Your task to perform on an android device: Open accessibility settings Image 0: 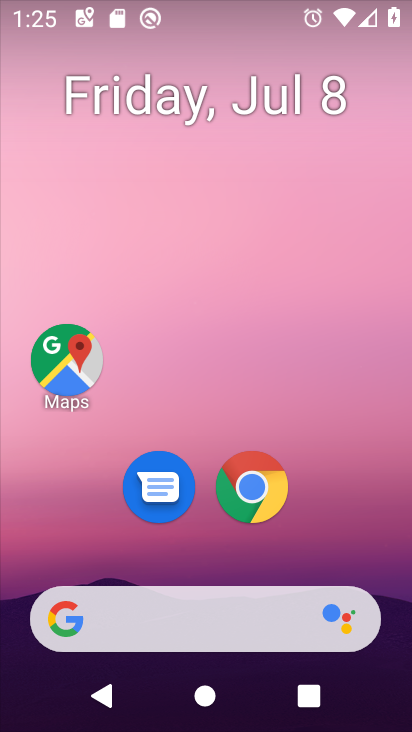
Step 0: drag from (352, 558) to (365, 243)
Your task to perform on an android device: Open accessibility settings Image 1: 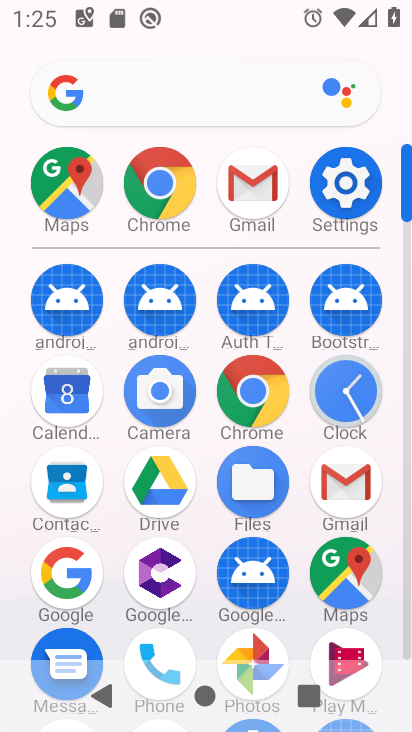
Step 1: click (366, 197)
Your task to perform on an android device: Open accessibility settings Image 2: 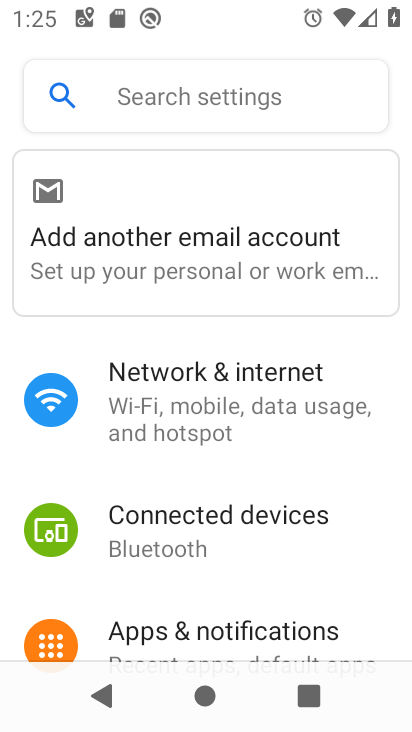
Step 2: drag from (370, 510) to (372, 409)
Your task to perform on an android device: Open accessibility settings Image 3: 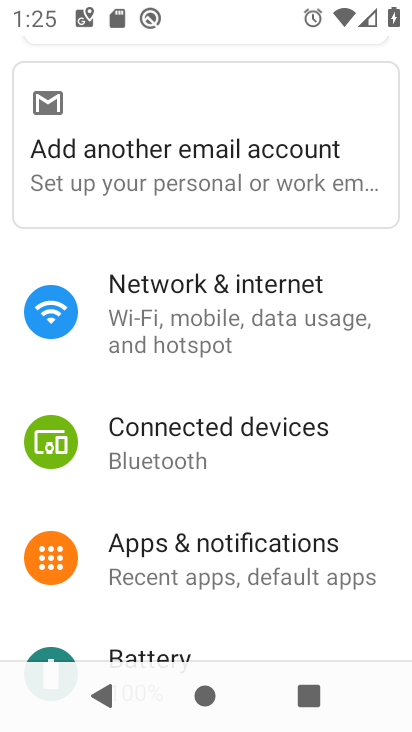
Step 3: drag from (376, 606) to (376, 469)
Your task to perform on an android device: Open accessibility settings Image 4: 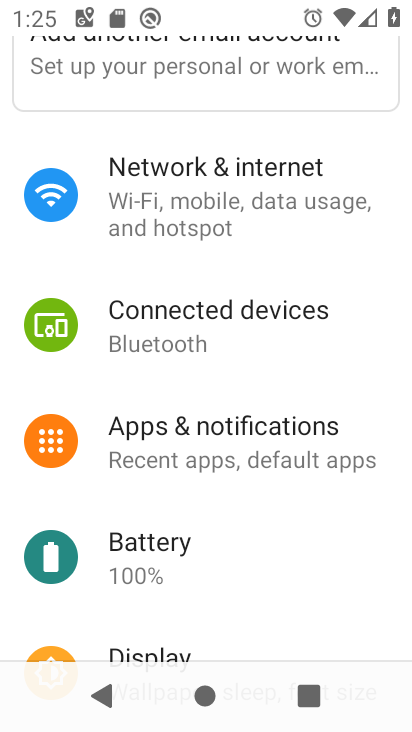
Step 4: drag from (367, 569) to (375, 418)
Your task to perform on an android device: Open accessibility settings Image 5: 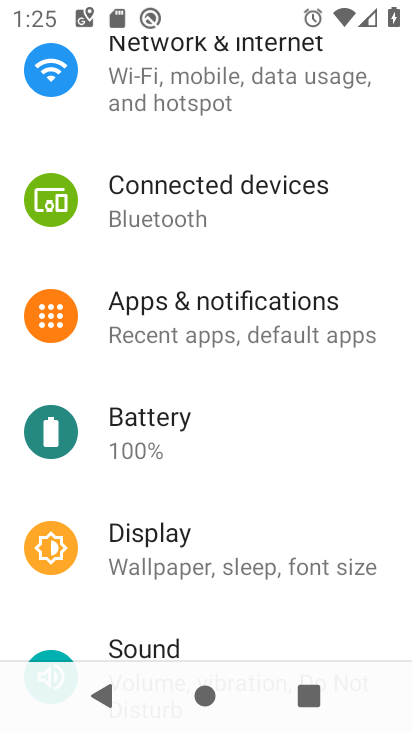
Step 5: drag from (374, 546) to (374, 428)
Your task to perform on an android device: Open accessibility settings Image 6: 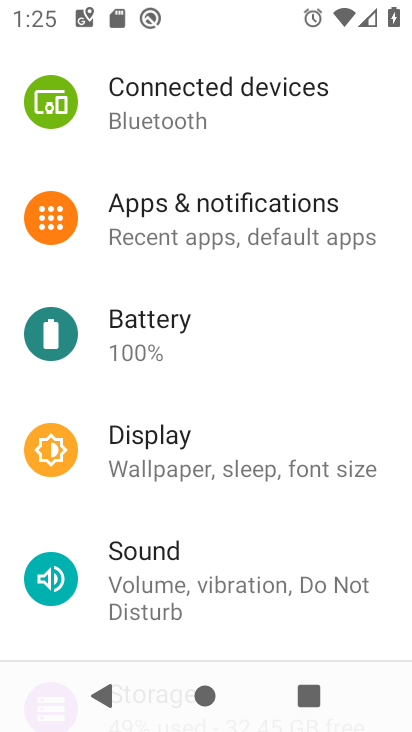
Step 6: drag from (351, 532) to (354, 405)
Your task to perform on an android device: Open accessibility settings Image 7: 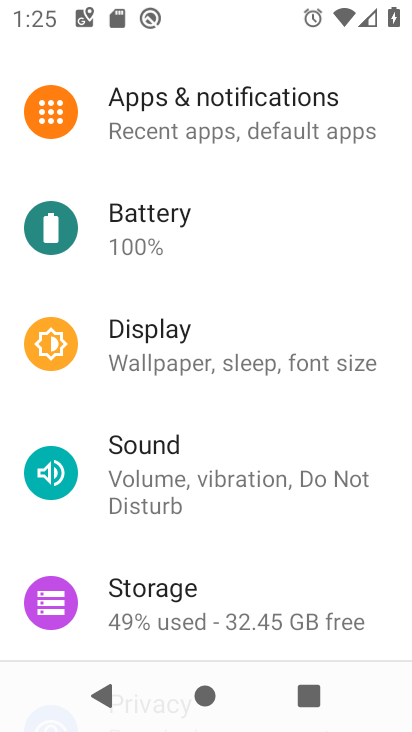
Step 7: drag from (363, 546) to (356, 446)
Your task to perform on an android device: Open accessibility settings Image 8: 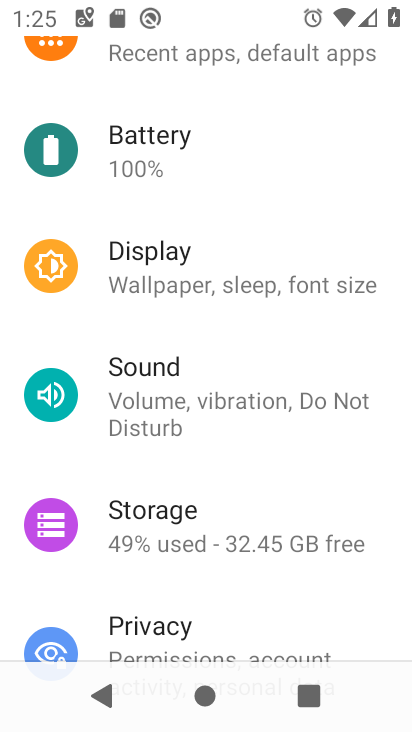
Step 8: drag from (365, 608) to (373, 489)
Your task to perform on an android device: Open accessibility settings Image 9: 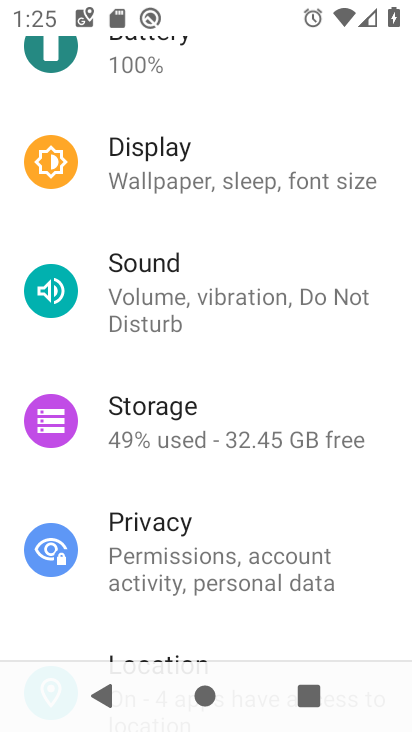
Step 9: drag from (342, 420) to (350, 312)
Your task to perform on an android device: Open accessibility settings Image 10: 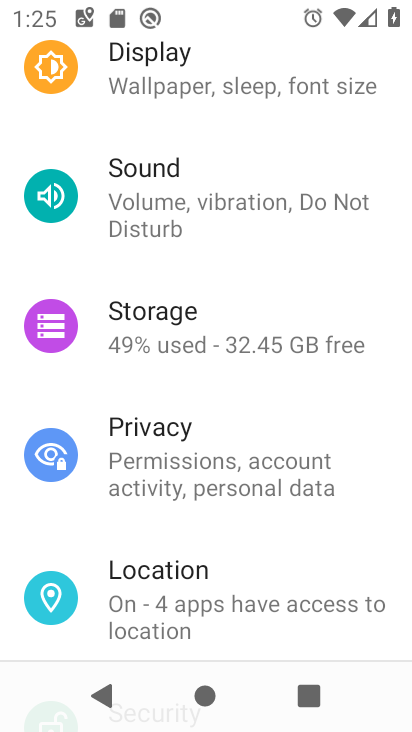
Step 10: drag from (273, 421) to (315, 226)
Your task to perform on an android device: Open accessibility settings Image 11: 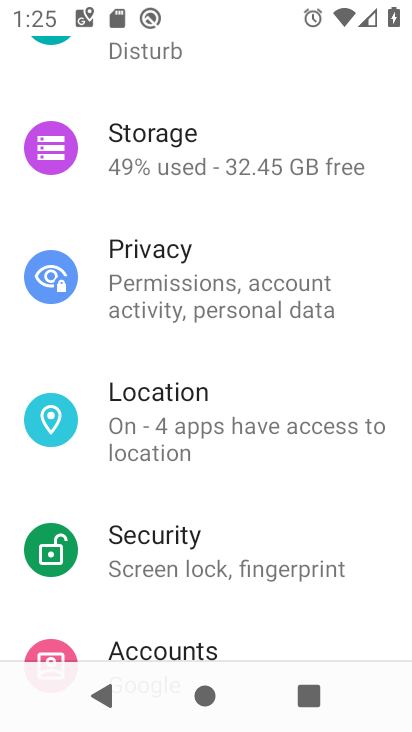
Step 11: drag from (328, 381) to (330, 222)
Your task to perform on an android device: Open accessibility settings Image 12: 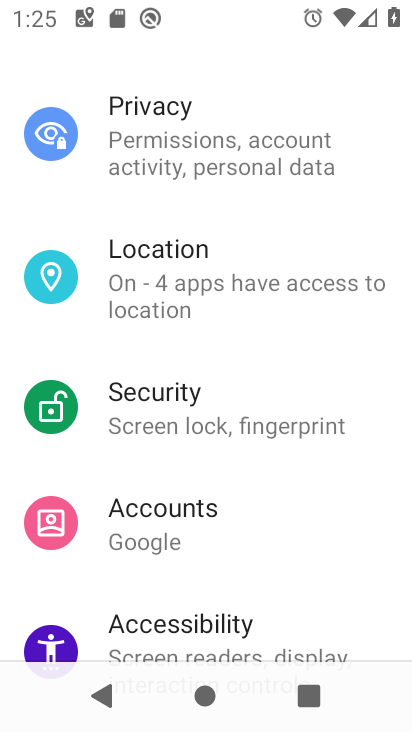
Step 12: drag from (268, 537) to (273, 383)
Your task to perform on an android device: Open accessibility settings Image 13: 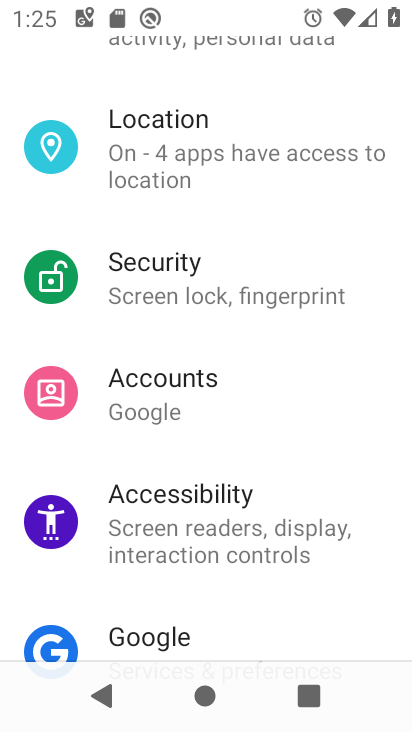
Step 13: click (268, 530)
Your task to perform on an android device: Open accessibility settings Image 14: 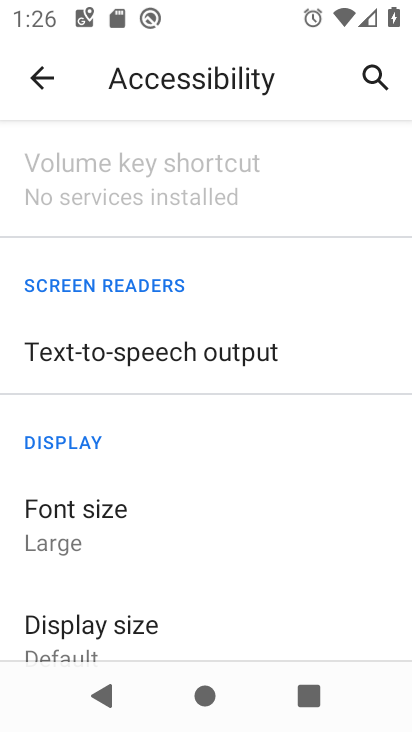
Step 14: task complete